Your task to perform on an android device: Open Google Image 0: 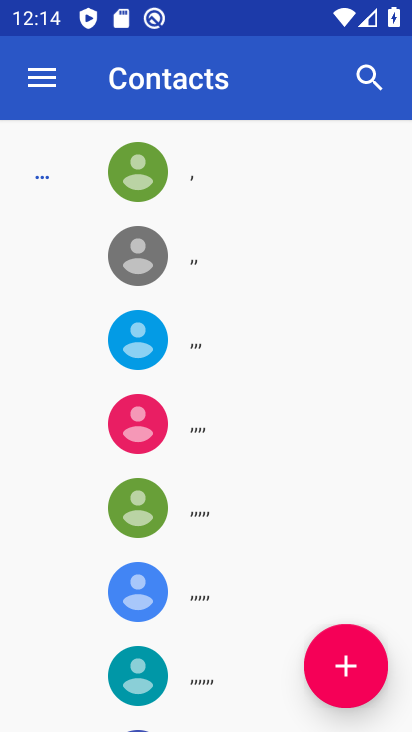
Step 0: press home button
Your task to perform on an android device: Open Google Image 1: 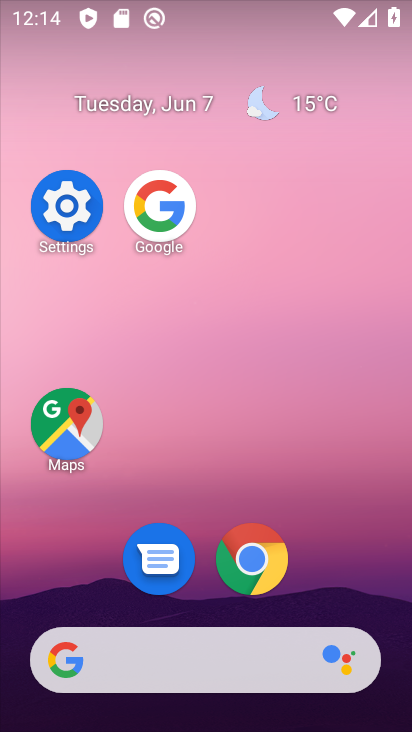
Step 1: click (150, 213)
Your task to perform on an android device: Open Google Image 2: 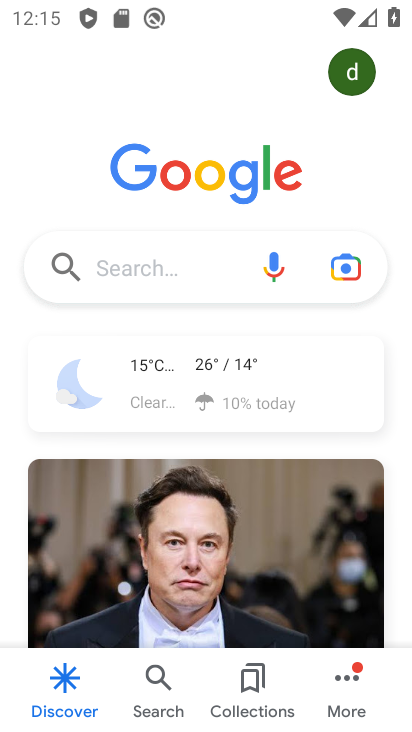
Step 2: task complete